Your task to perform on an android device: check google app version Image 0: 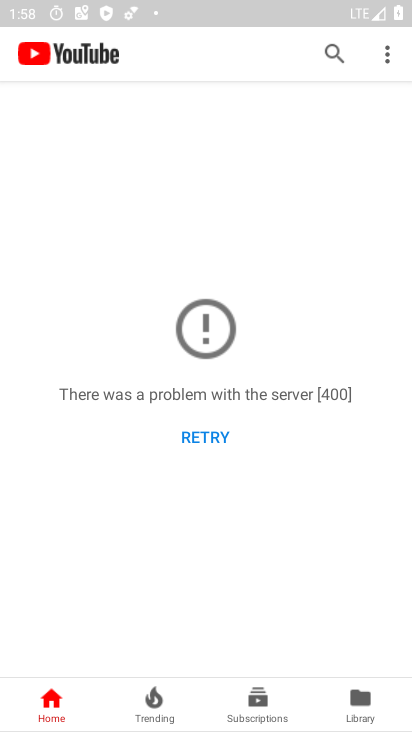
Step 0: press home button
Your task to perform on an android device: check google app version Image 1: 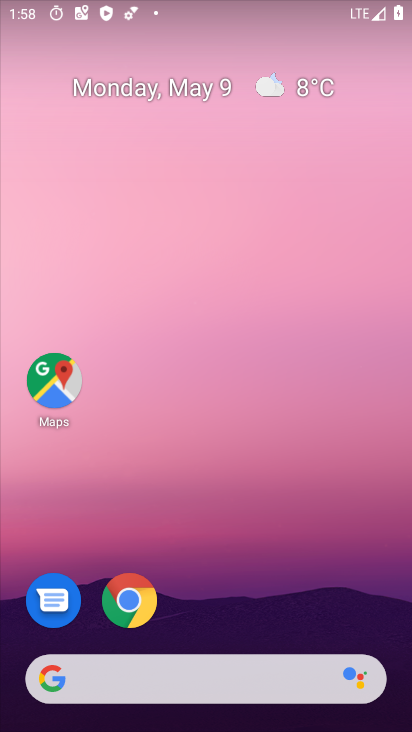
Step 1: drag from (204, 626) to (241, 46)
Your task to perform on an android device: check google app version Image 2: 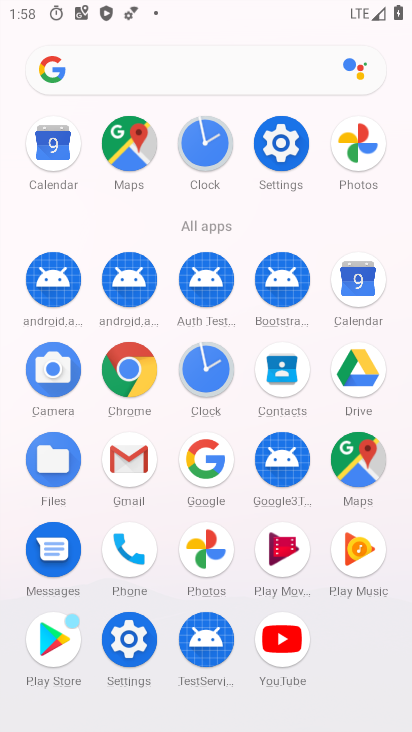
Step 2: click (205, 450)
Your task to perform on an android device: check google app version Image 3: 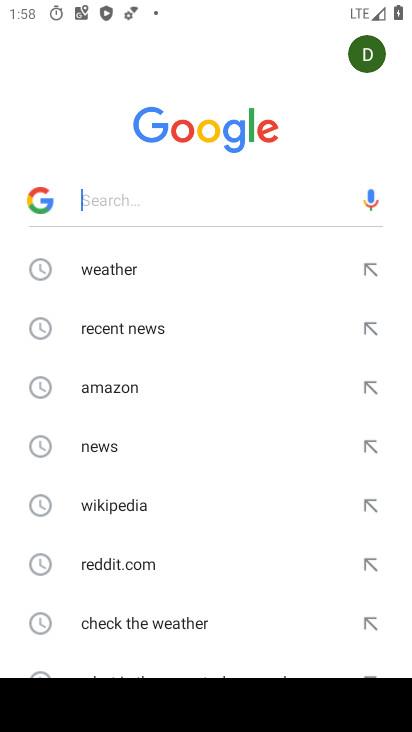
Step 3: drag from (169, 489) to (172, 187)
Your task to perform on an android device: check google app version Image 4: 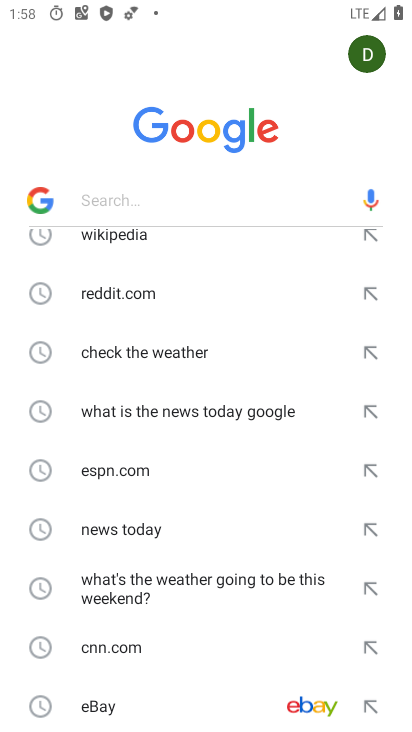
Step 4: press back button
Your task to perform on an android device: check google app version Image 5: 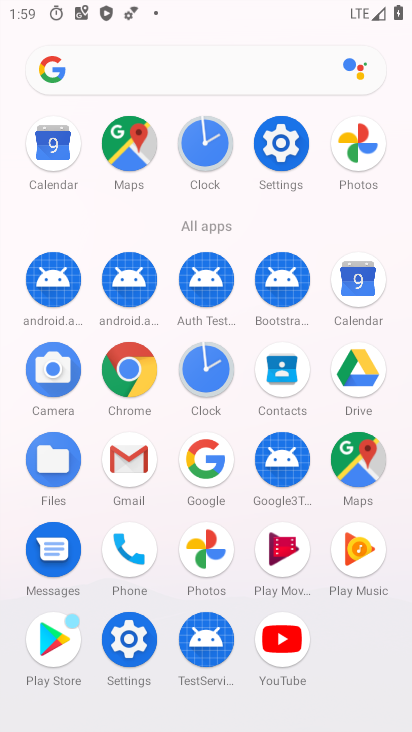
Step 5: click (213, 454)
Your task to perform on an android device: check google app version Image 6: 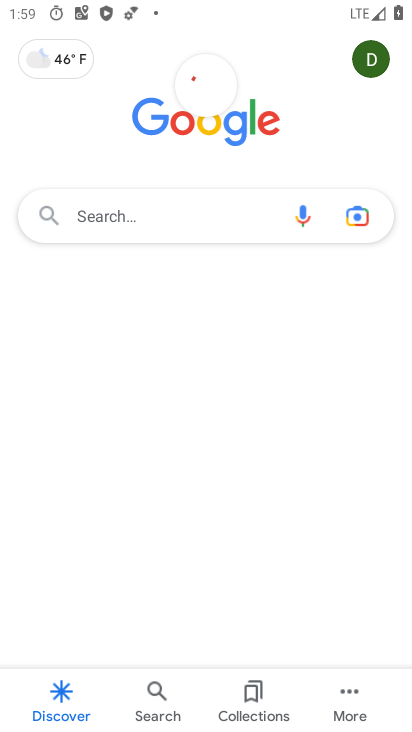
Step 6: click (329, 699)
Your task to perform on an android device: check google app version Image 7: 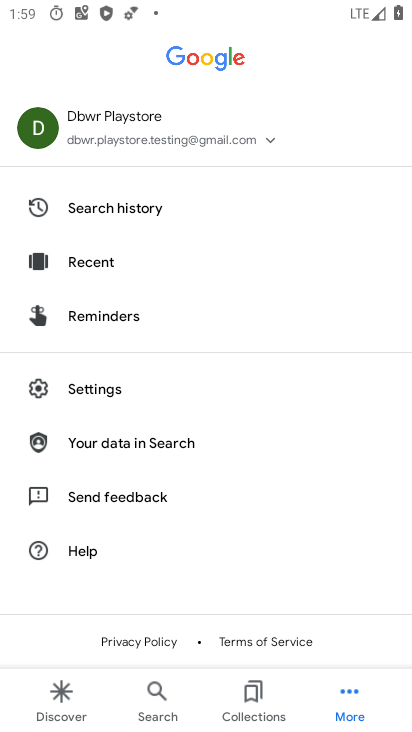
Step 7: click (84, 389)
Your task to perform on an android device: check google app version Image 8: 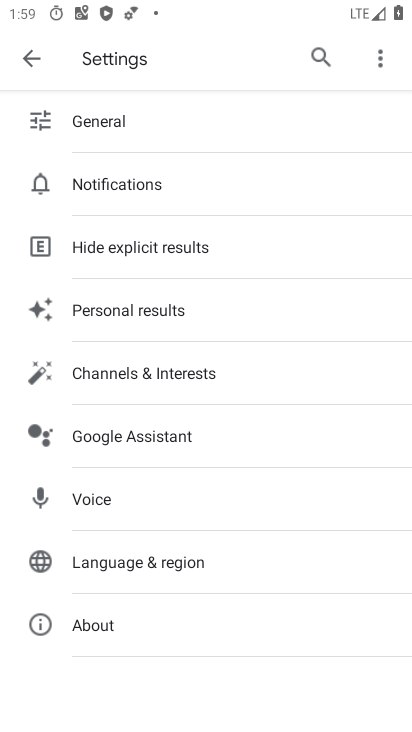
Step 8: click (114, 631)
Your task to perform on an android device: check google app version Image 9: 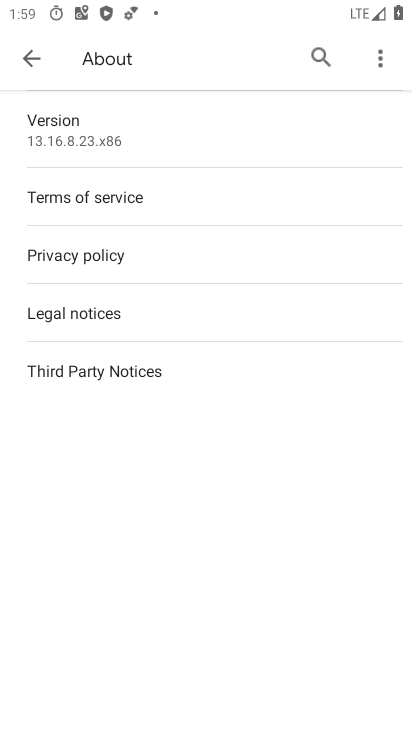
Step 9: task complete